Your task to perform on an android device: open app "Messages" Image 0: 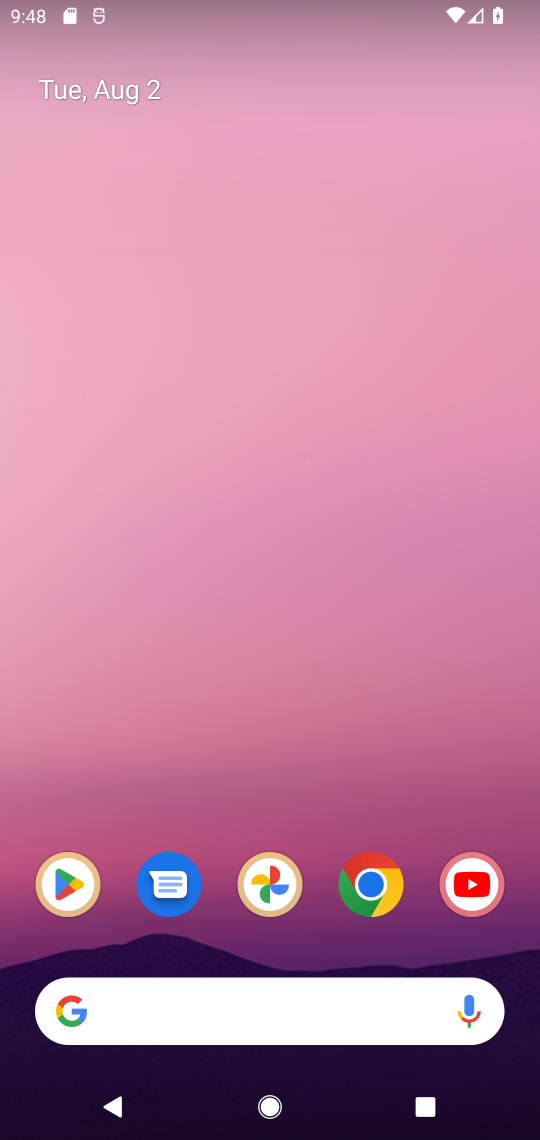
Step 0: click (184, 878)
Your task to perform on an android device: open app "Messages" Image 1: 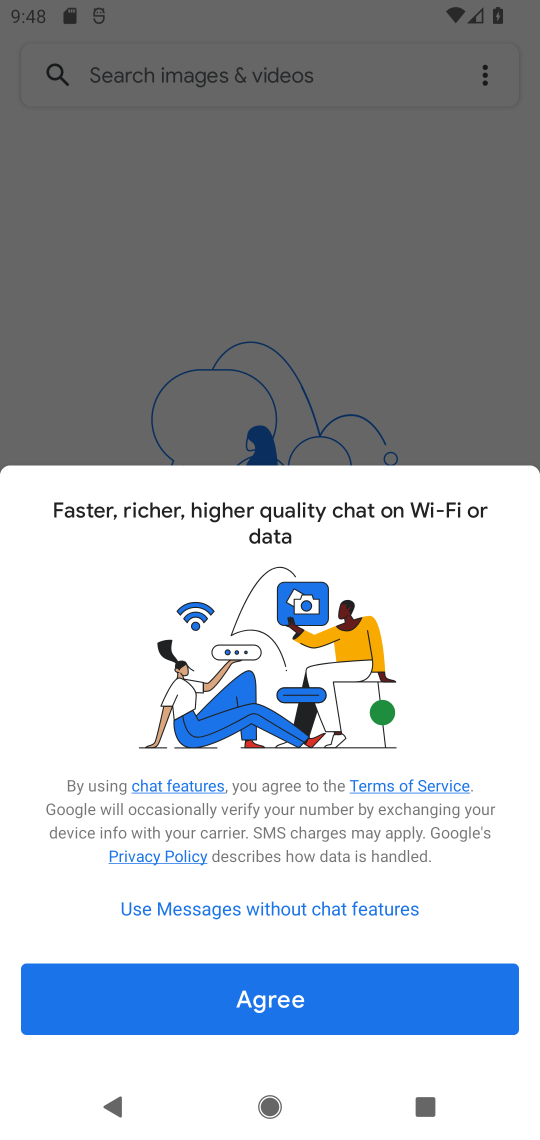
Step 1: click (260, 1009)
Your task to perform on an android device: open app "Messages" Image 2: 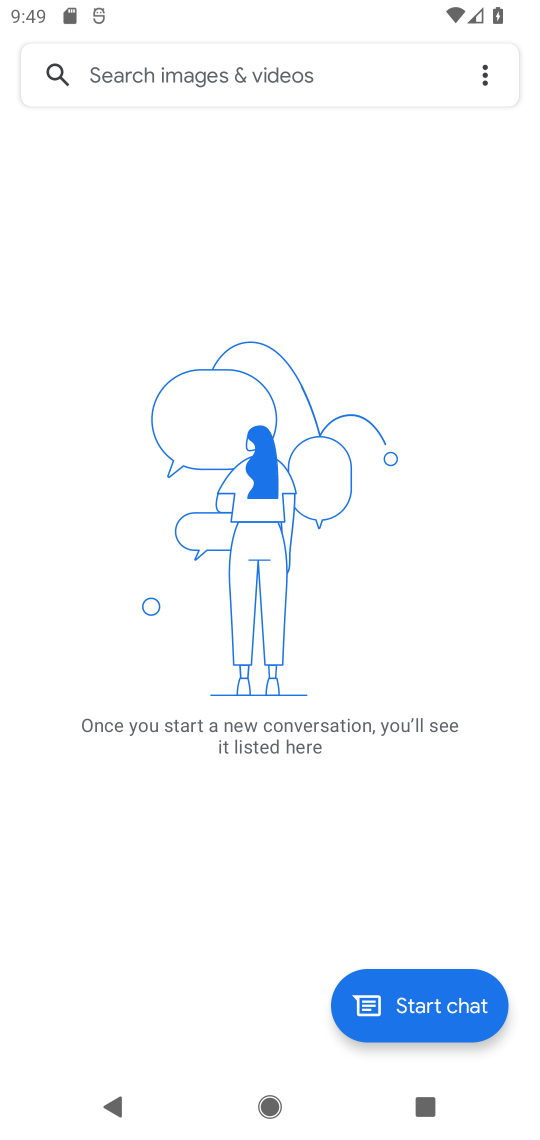
Step 2: task complete